Your task to perform on an android device: turn off notifications in google photos Image 0: 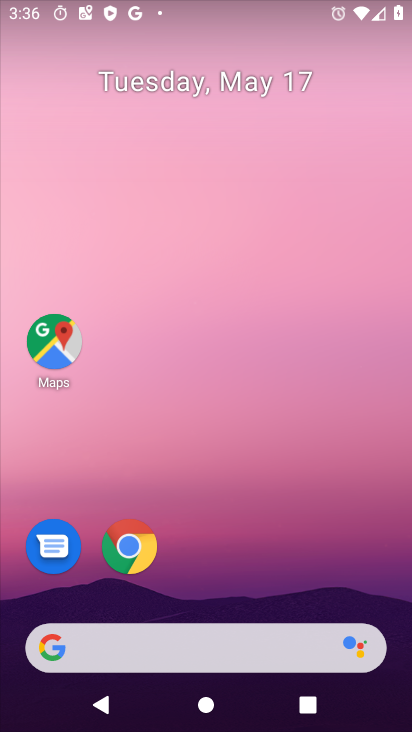
Step 0: drag from (401, 623) to (405, 221)
Your task to perform on an android device: turn off notifications in google photos Image 1: 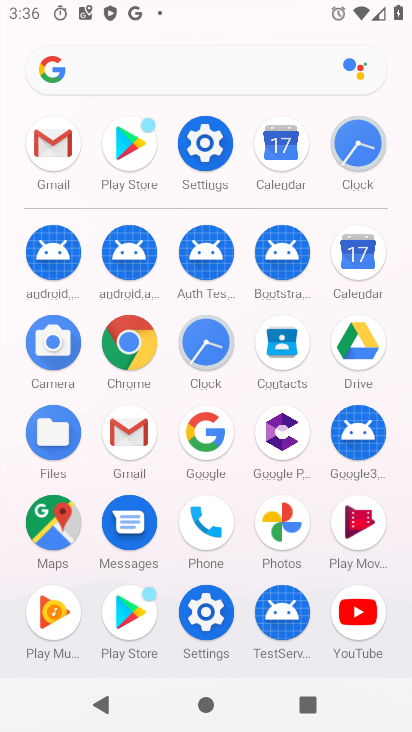
Step 1: click (277, 531)
Your task to perform on an android device: turn off notifications in google photos Image 2: 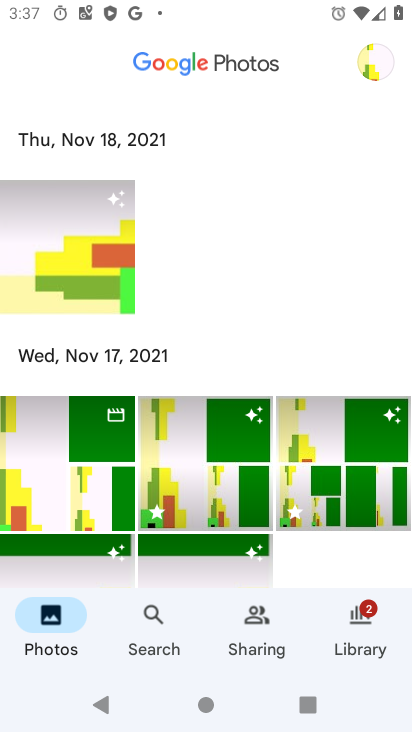
Step 2: click (378, 75)
Your task to perform on an android device: turn off notifications in google photos Image 3: 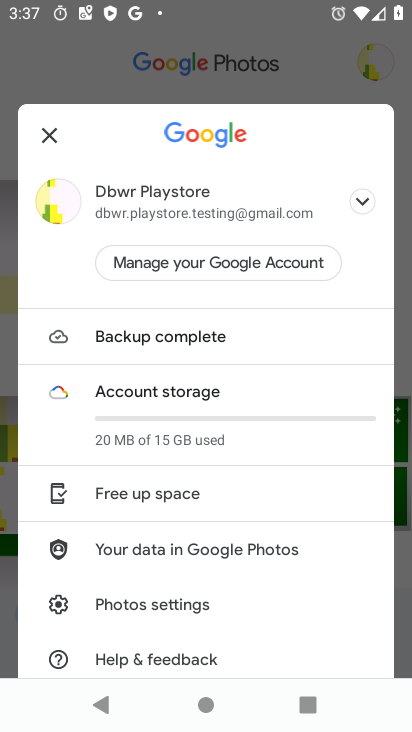
Step 3: drag from (253, 639) to (251, 453)
Your task to perform on an android device: turn off notifications in google photos Image 4: 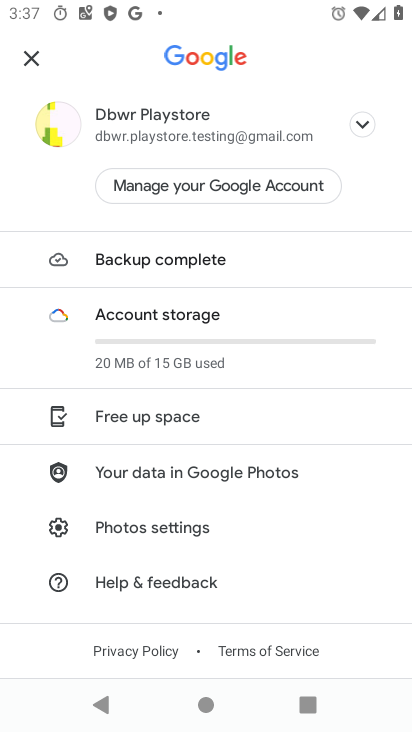
Step 4: click (126, 531)
Your task to perform on an android device: turn off notifications in google photos Image 5: 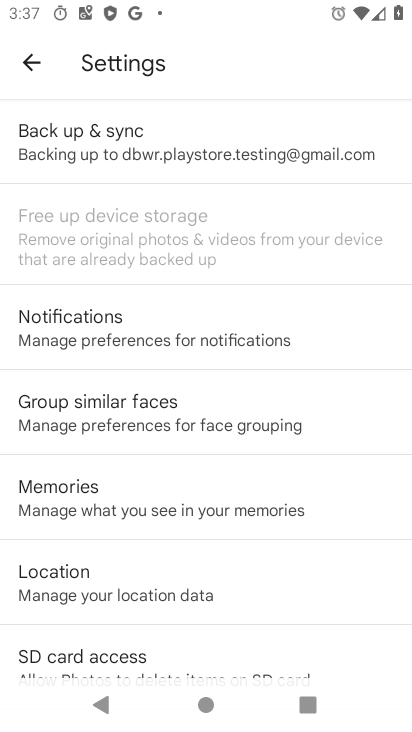
Step 5: click (93, 330)
Your task to perform on an android device: turn off notifications in google photos Image 6: 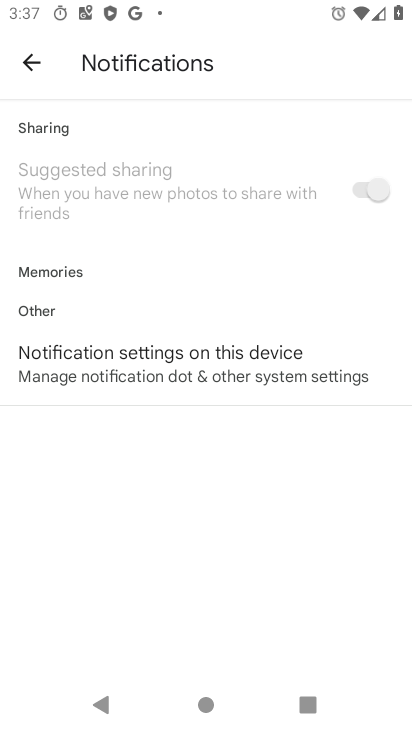
Step 6: click (114, 368)
Your task to perform on an android device: turn off notifications in google photos Image 7: 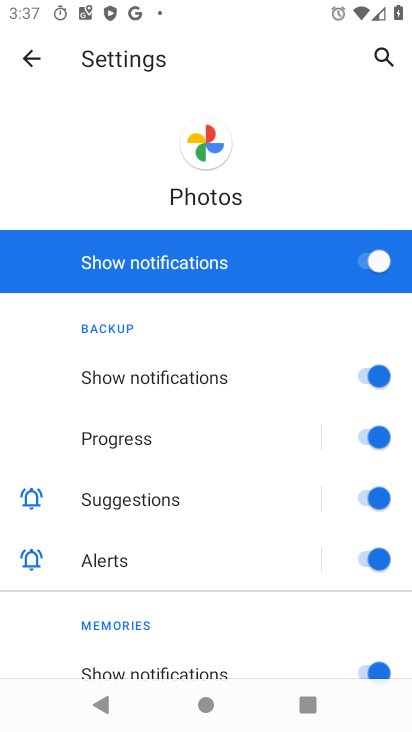
Step 7: click (364, 264)
Your task to perform on an android device: turn off notifications in google photos Image 8: 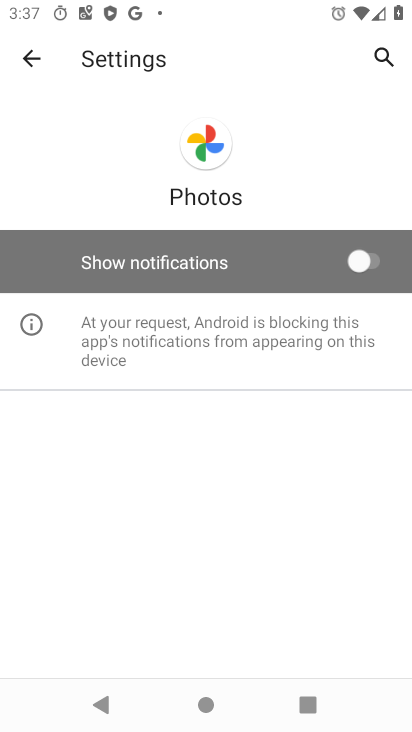
Step 8: task complete